Your task to perform on an android device: Open Maps and search for coffee Image 0: 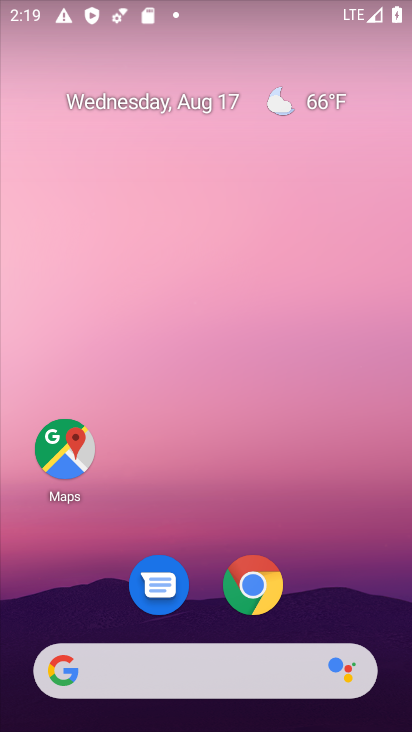
Step 0: drag from (271, 510) to (248, 10)
Your task to perform on an android device: Open Maps and search for coffee Image 1: 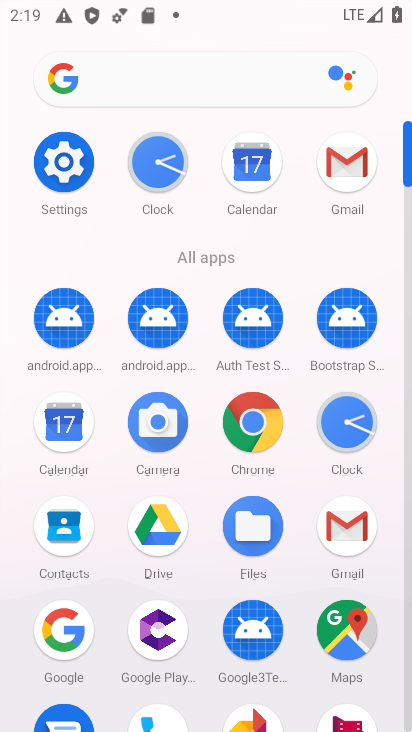
Step 1: click (355, 627)
Your task to perform on an android device: Open Maps and search for coffee Image 2: 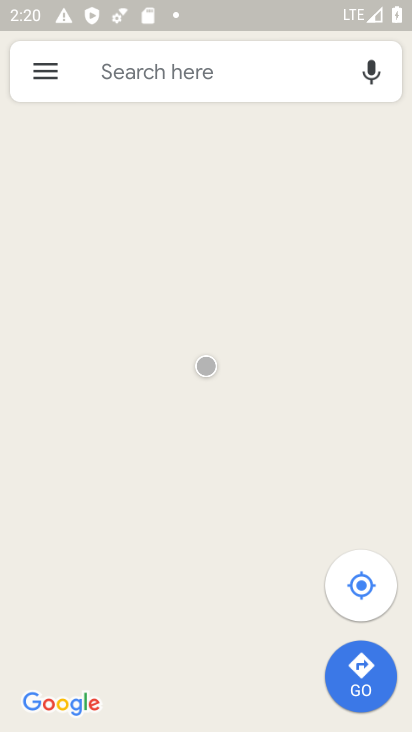
Step 2: click (209, 72)
Your task to perform on an android device: Open Maps and search for coffee Image 3: 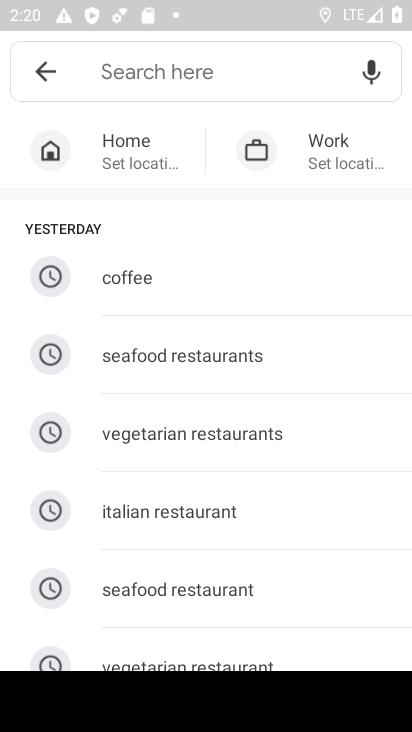
Step 3: click (150, 277)
Your task to perform on an android device: Open Maps and search for coffee Image 4: 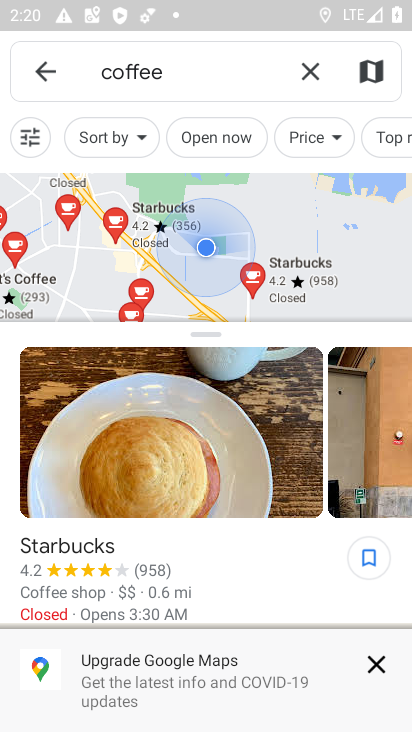
Step 4: task complete